Your task to perform on an android device: turn on showing notifications on the lock screen Image 0: 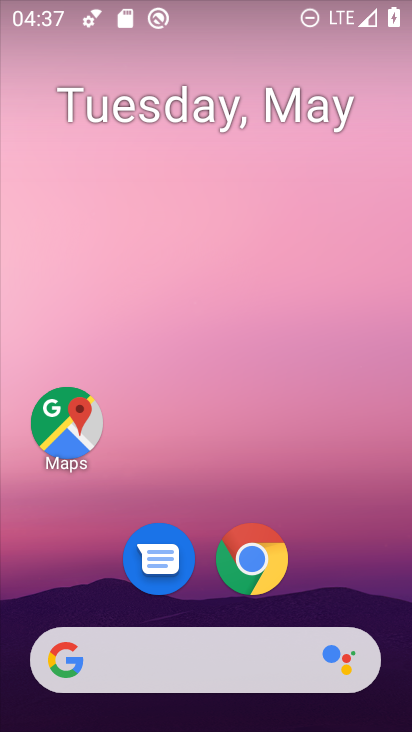
Step 0: drag from (265, 725) to (265, 222)
Your task to perform on an android device: turn on showing notifications on the lock screen Image 1: 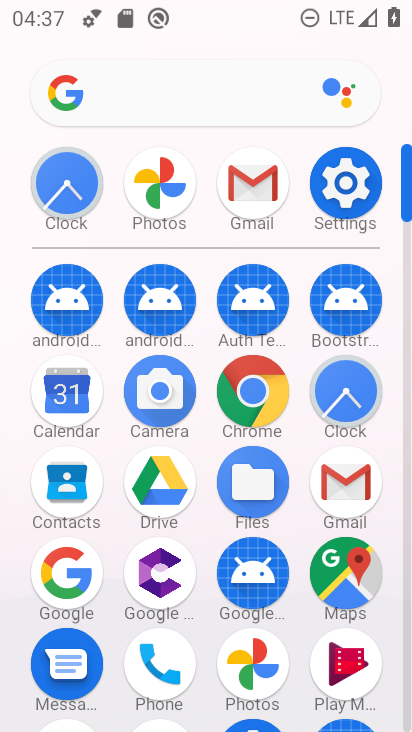
Step 1: click (342, 173)
Your task to perform on an android device: turn on showing notifications on the lock screen Image 2: 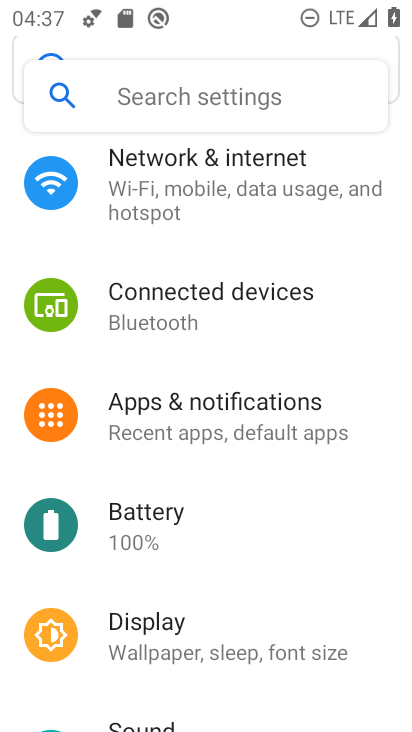
Step 2: click (235, 406)
Your task to perform on an android device: turn on showing notifications on the lock screen Image 3: 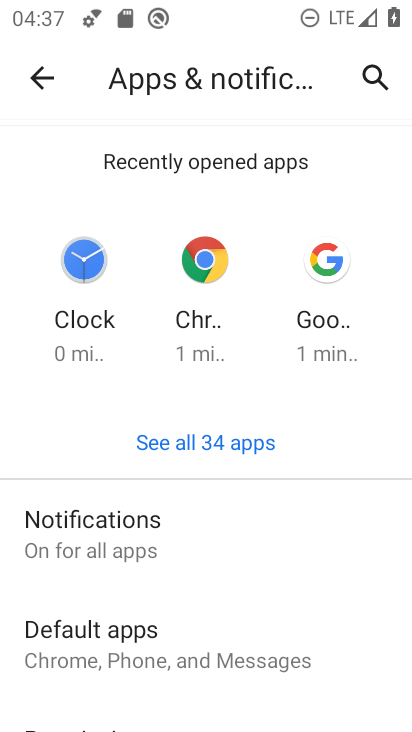
Step 3: click (89, 540)
Your task to perform on an android device: turn on showing notifications on the lock screen Image 4: 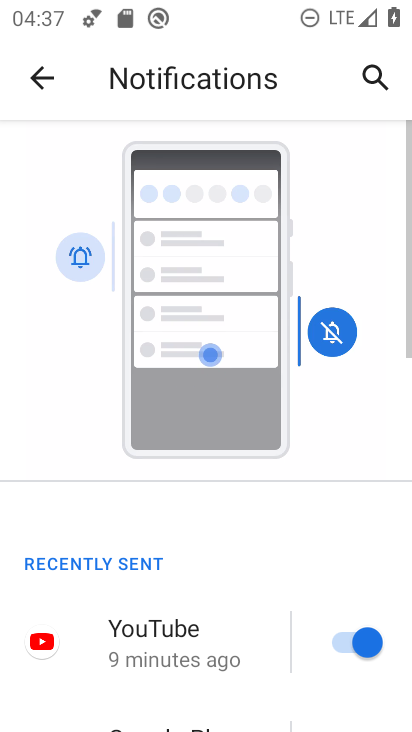
Step 4: drag from (288, 694) to (292, 320)
Your task to perform on an android device: turn on showing notifications on the lock screen Image 5: 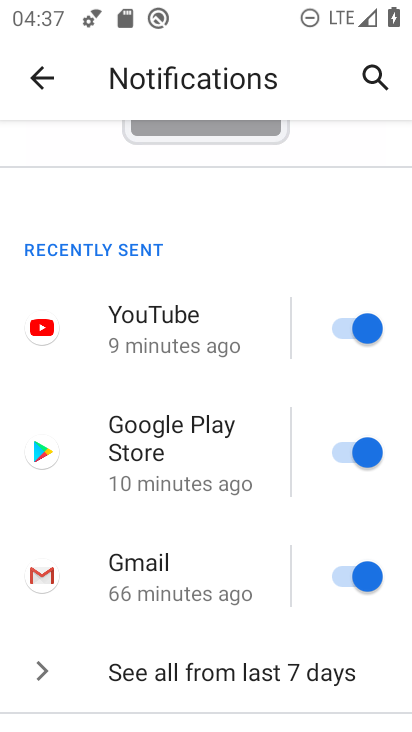
Step 5: drag from (290, 699) to (292, 356)
Your task to perform on an android device: turn on showing notifications on the lock screen Image 6: 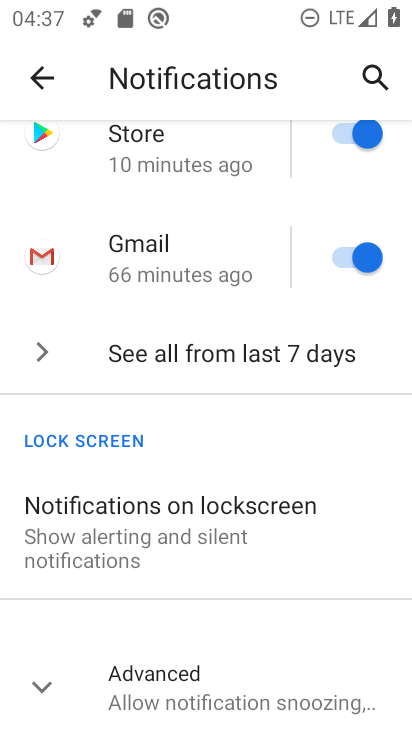
Step 6: click (103, 524)
Your task to perform on an android device: turn on showing notifications on the lock screen Image 7: 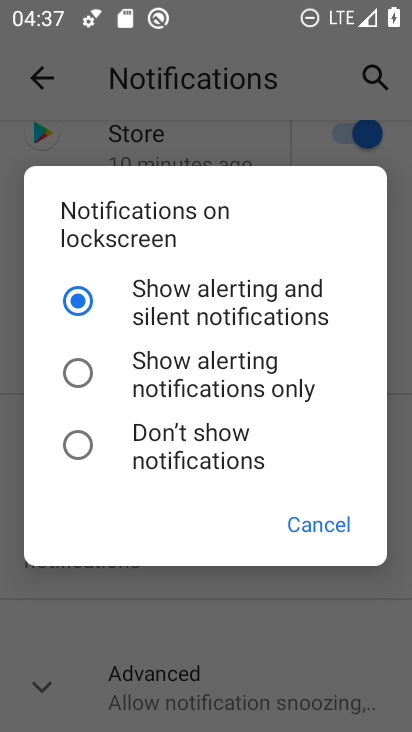
Step 7: click (311, 525)
Your task to perform on an android device: turn on showing notifications on the lock screen Image 8: 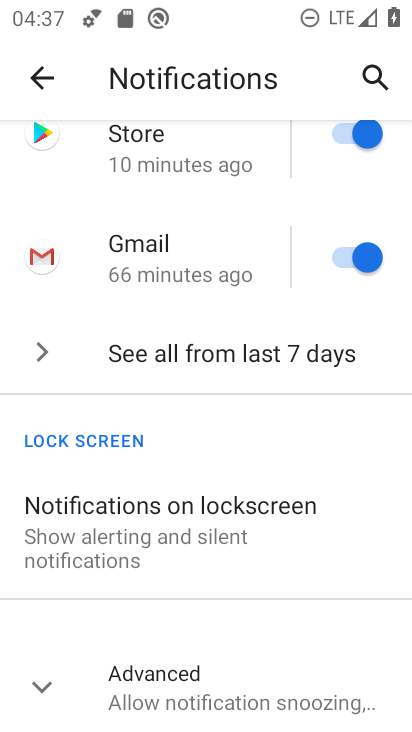
Step 8: task complete